Your task to perform on an android device: Open wifi settings Image 0: 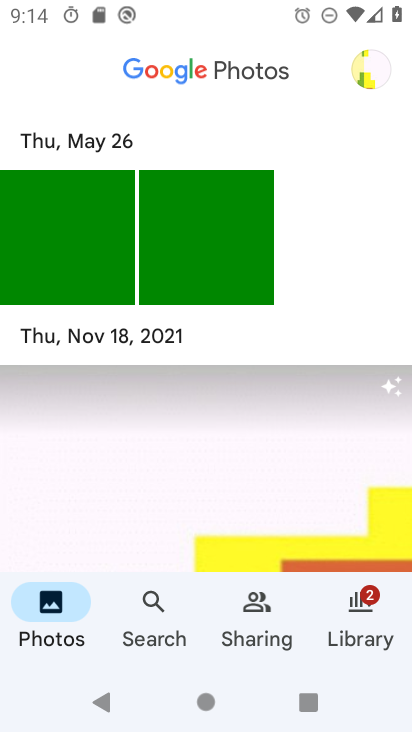
Step 0: press home button
Your task to perform on an android device: Open wifi settings Image 1: 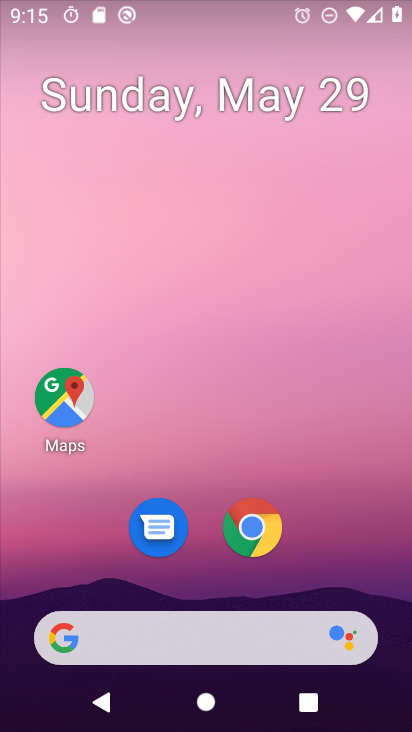
Step 1: drag from (403, 657) to (313, 15)
Your task to perform on an android device: Open wifi settings Image 2: 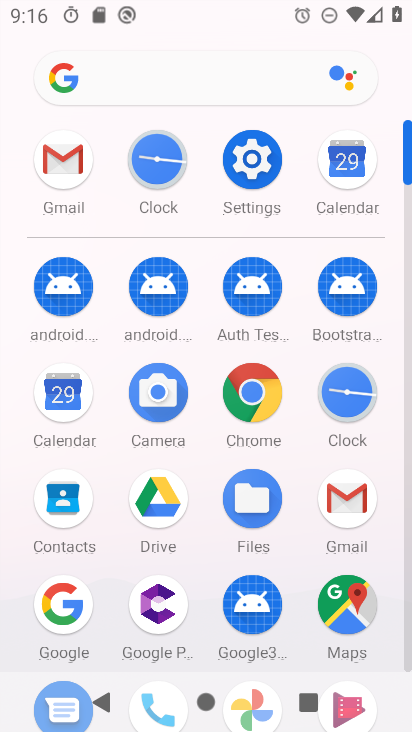
Step 2: click (252, 157)
Your task to perform on an android device: Open wifi settings Image 3: 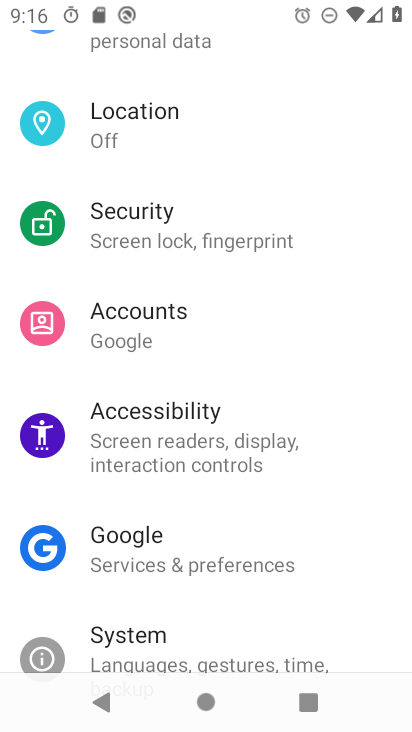
Step 3: drag from (252, 157) to (227, 669)
Your task to perform on an android device: Open wifi settings Image 4: 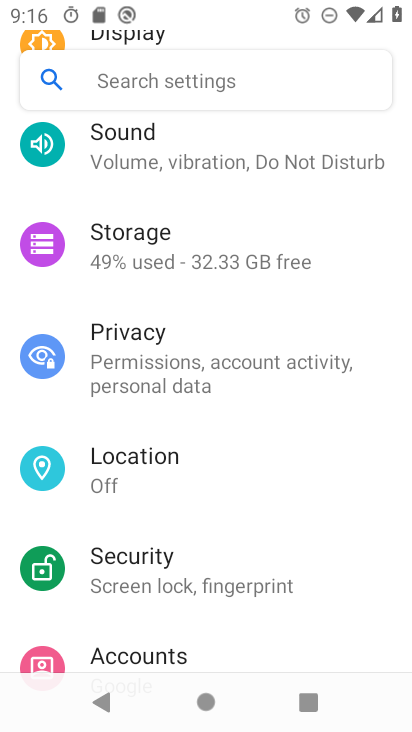
Step 4: drag from (189, 221) to (103, 731)
Your task to perform on an android device: Open wifi settings Image 5: 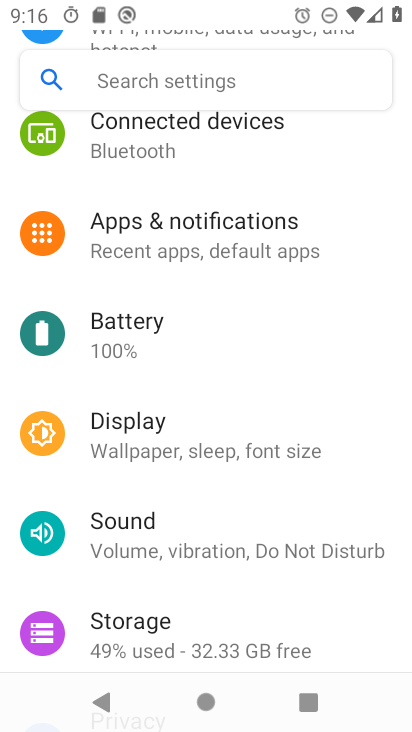
Step 5: drag from (303, 198) to (261, 611)
Your task to perform on an android device: Open wifi settings Image 6: 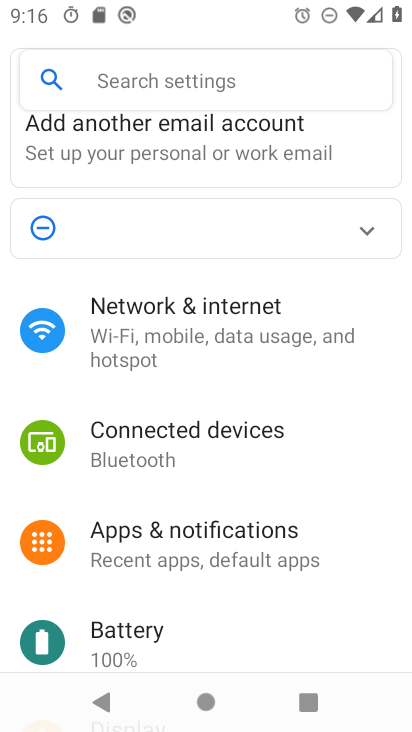
Step 6: click (204, 364)
Your task to perform on an android device: Open wifi settings Image 7: 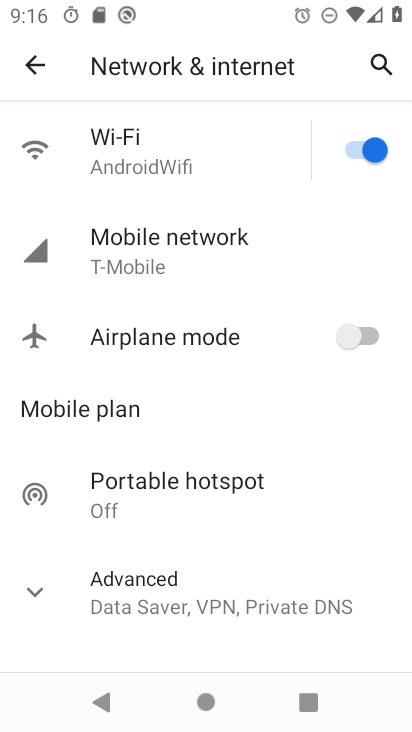
Step 7: click (113, 144)
Your task to perform on an android device: Open wifi settings Image 8: 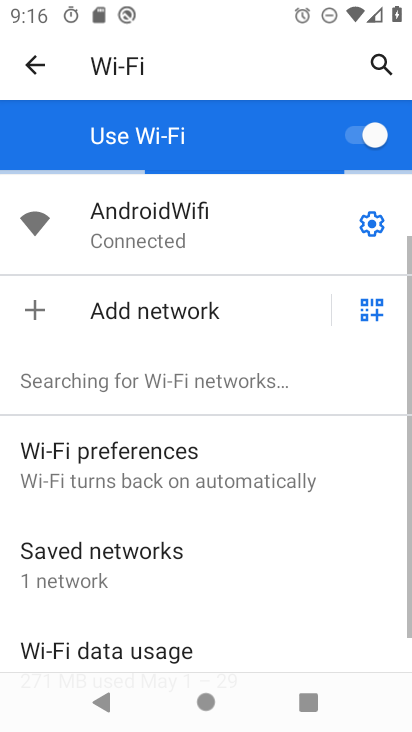
Step 8: task complete